Your task to perform on an android device: What's the weather going to be tomorrow? Image 0: 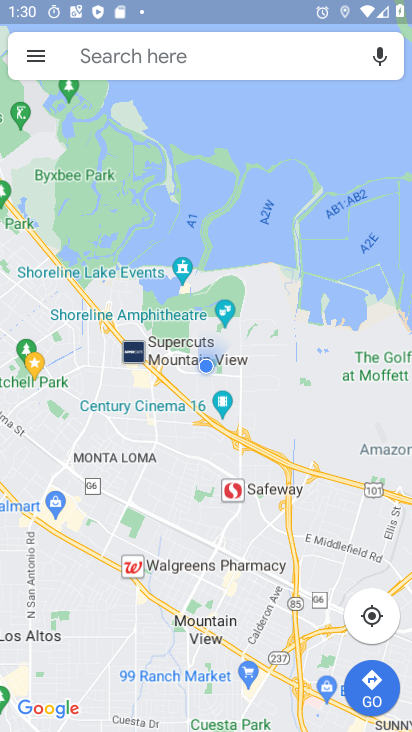
Step 0: press home button
Your task to perform on an android device: What's the weather going to be tomorrow? Image 1: 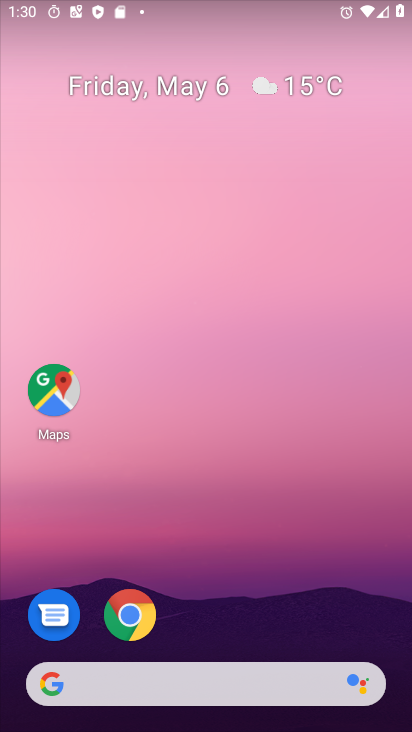
Step 1: click (309, 80)
Your task to perform on an android device: What's the weather going to be tomorrow? Image 2: 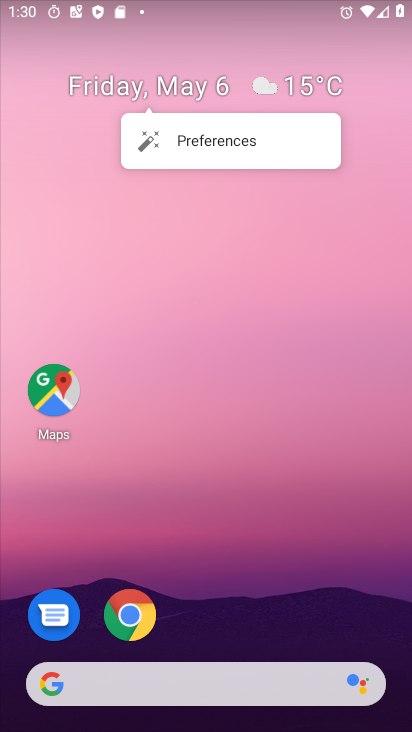
Step 2: click (309, 80)
Your task to perform on an android device: What's the weather going to be tomorrow? Image 3: 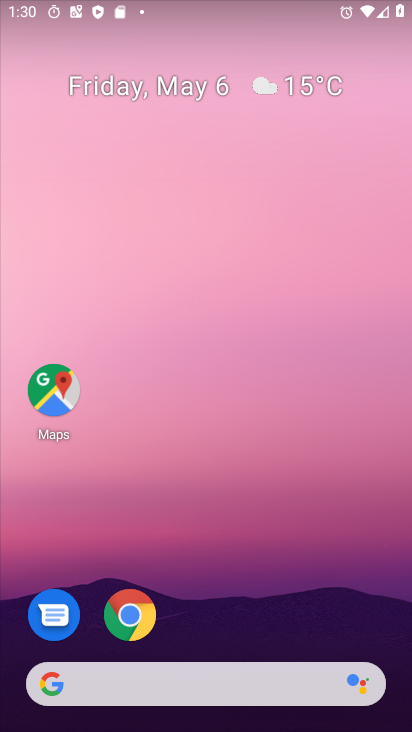
Step 3: click (298, 83)
Your task to perform on an android device: What's the weather going to be tomorrow? Image 4: 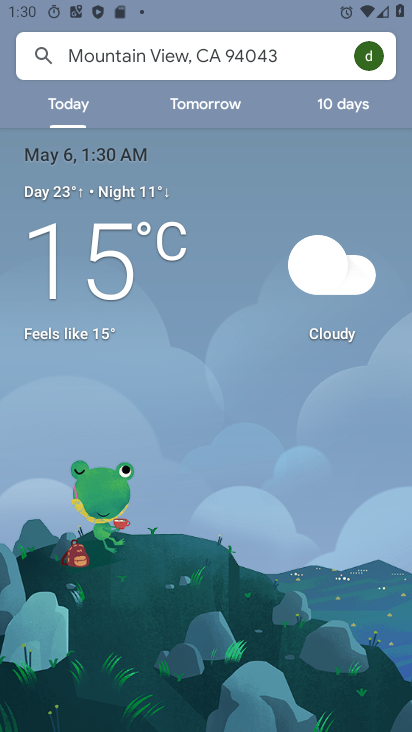
Step 4: click (214, 94)
Your task to perform on an android device: What's the weather going to be tomorrow? Image 5: 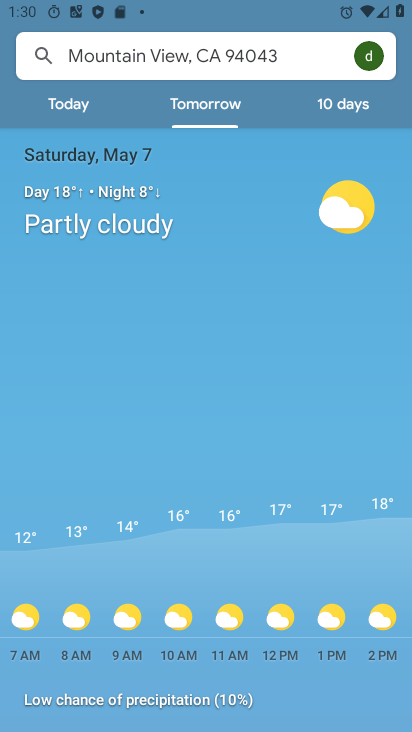
Step 5: task complete